Your task to perform on an android device: Open Google Chrome and open the bookmarks view Image 0: 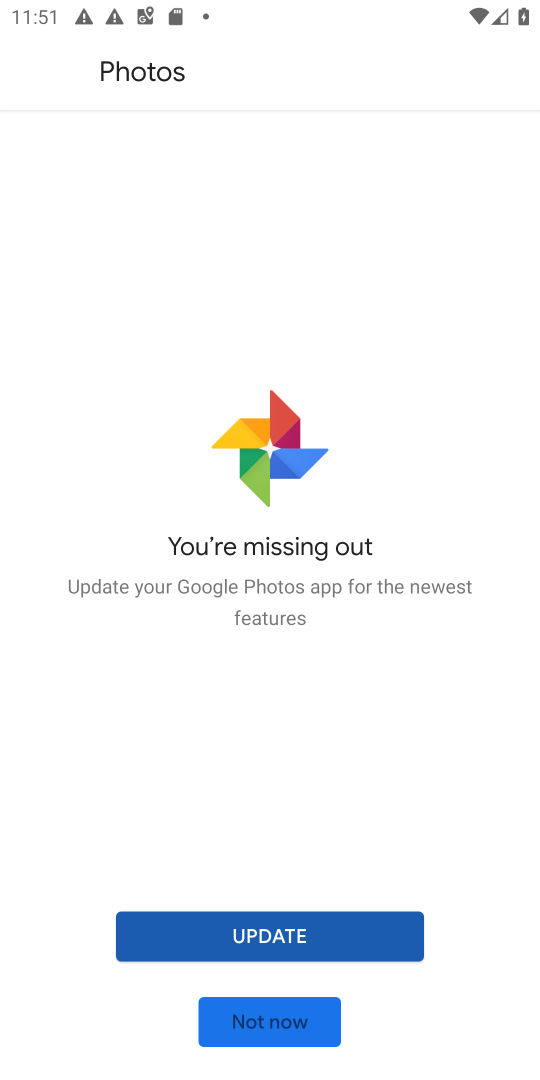
Step 0: press home button
Your task to perform on an android device: Open Google Chrome and open the bookmarks view Image 1: 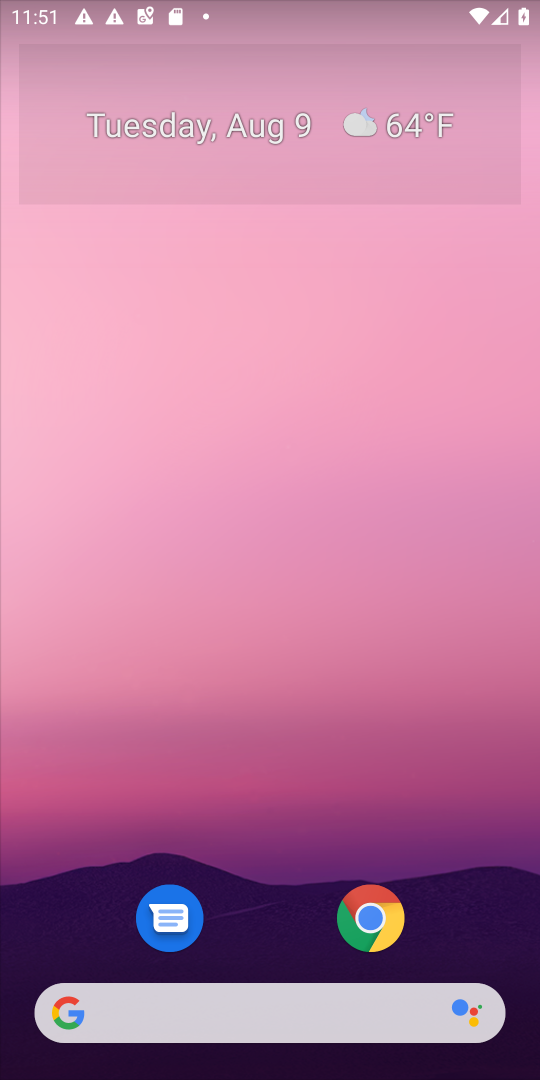
Step 1: drag from (274, 879) to (236, 61)
Your task to perform on an android device: Open Google Chrome and open the bookmarks view Image 2: 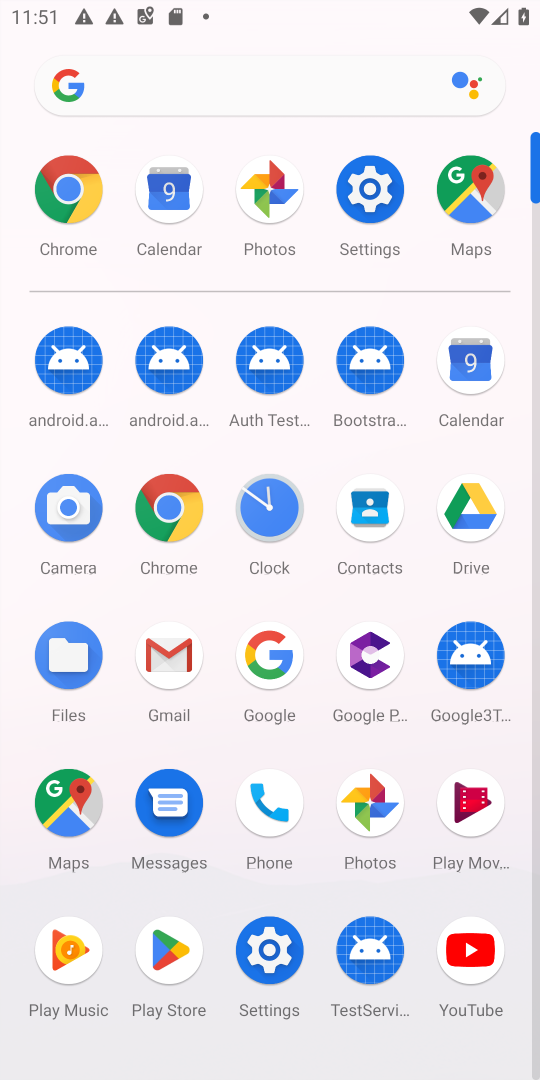
Step 2: click (171, 510)
Your task to perform on an android device: Open Google Chrome and open the bookmarks view Image 3: 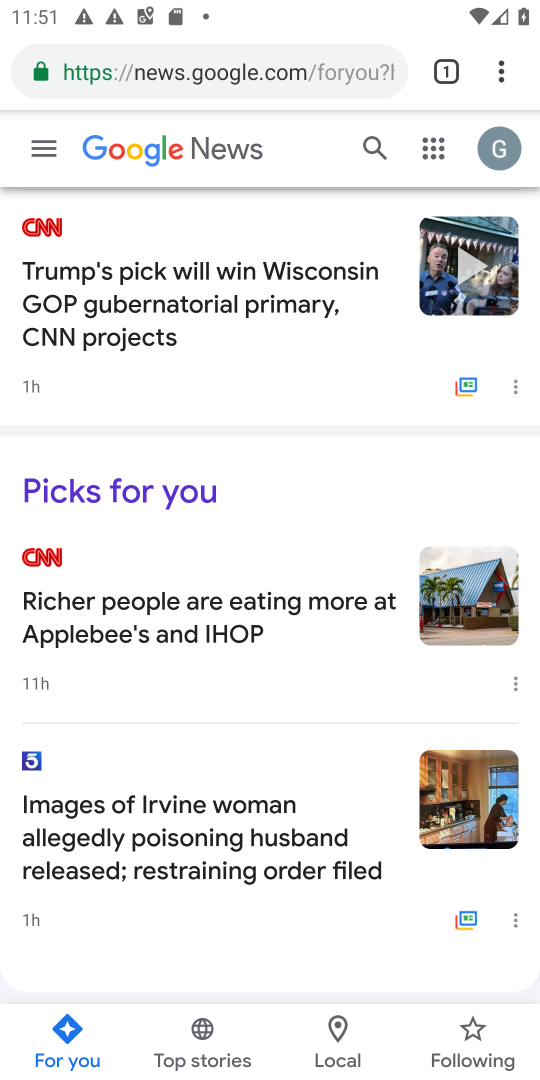
Step 3: task complete